Your task to perform on an android device: manage bookmarks in the chrome app Image 0: 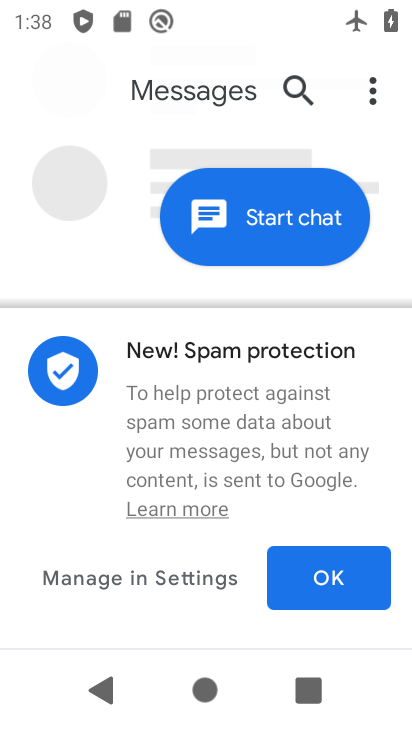
Step 0: press home button
Your task to perform on an android device: manage bookmarks in the chrome app Image 1: 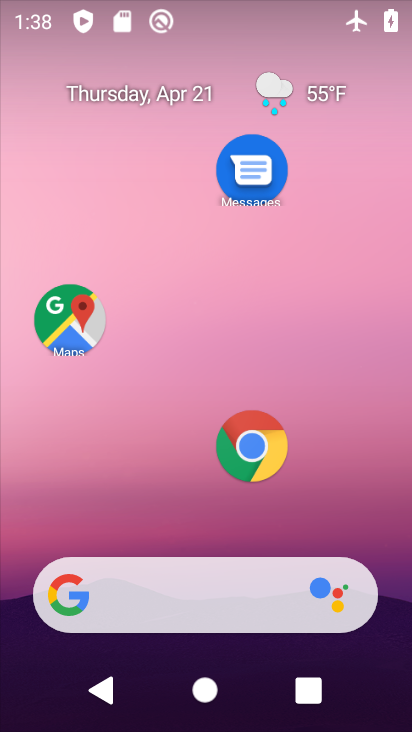
Step 1: click (251, 442)
Your task to perform on an android device: manage bookmarks in the chrome app Image 2: 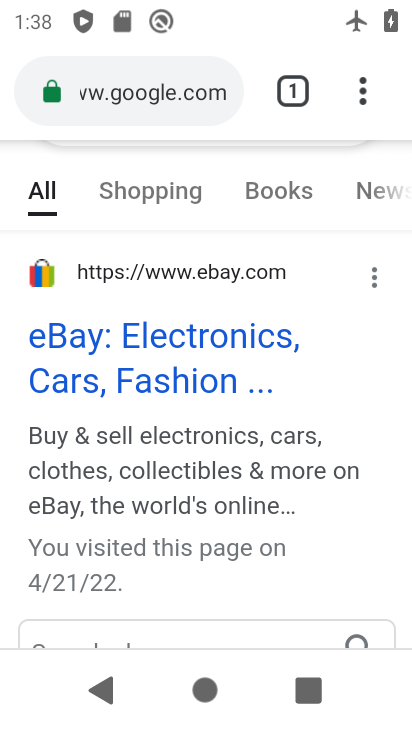
Step 2: click (363, 91)
Your task to perform on an android device: manage bookmarks in the chrome app Image 3: 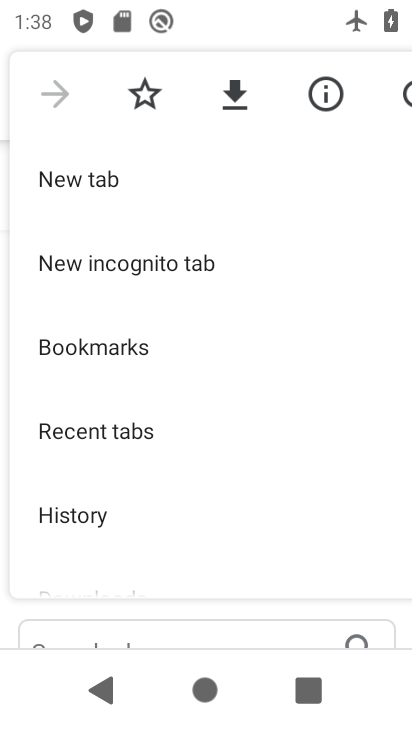
Step 3: click (136, 350)
Your task to perform on an android device: manage bookmarks in the chrome app Image 4: 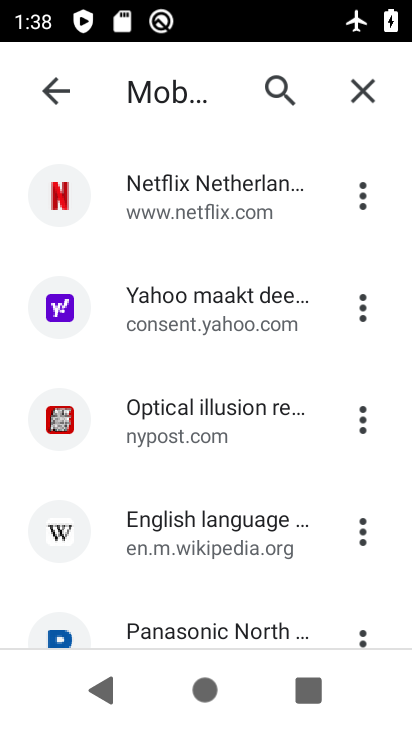
Step 4: click (363, 193)
Your task to perform on an android device: manage bookmarks in the chrome app Image 5: 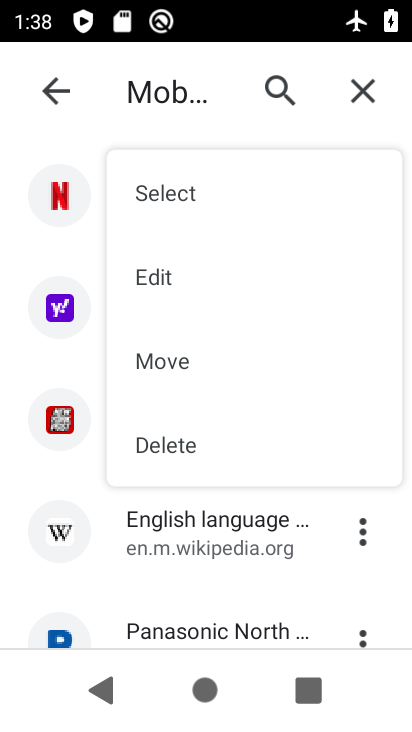
Step 5: click (152, 278)
Your task to perform on an android device: manage bookmarks in the chrome app Image 6: 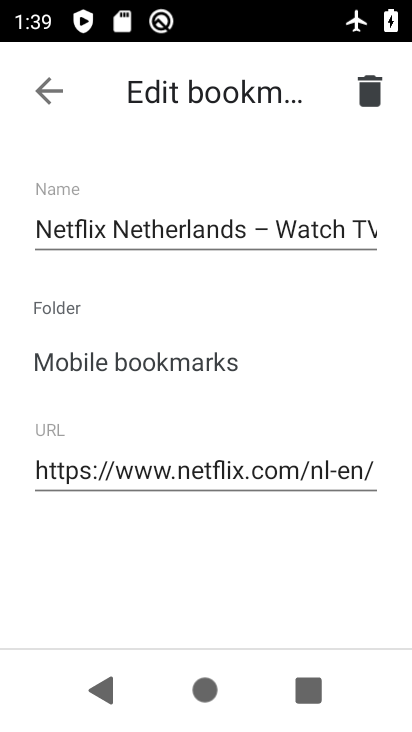
Step 6: click (372, 91)
Your task to perform on an android device: manage bookmarks in the chrome app Image 7: 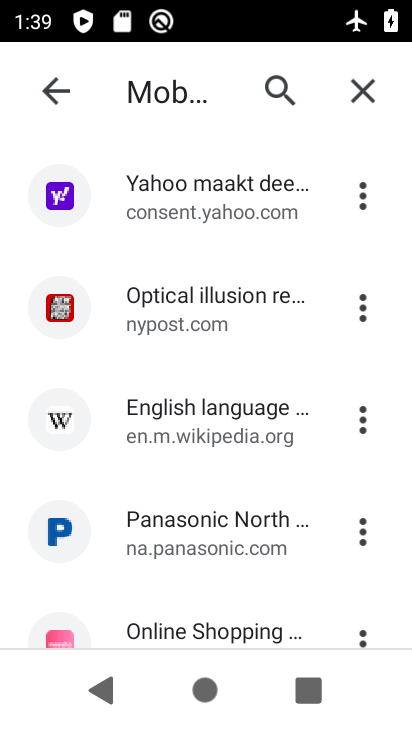
Step 7: task complete